Your task to perform on an android device: open device folders in google photos Image 0: 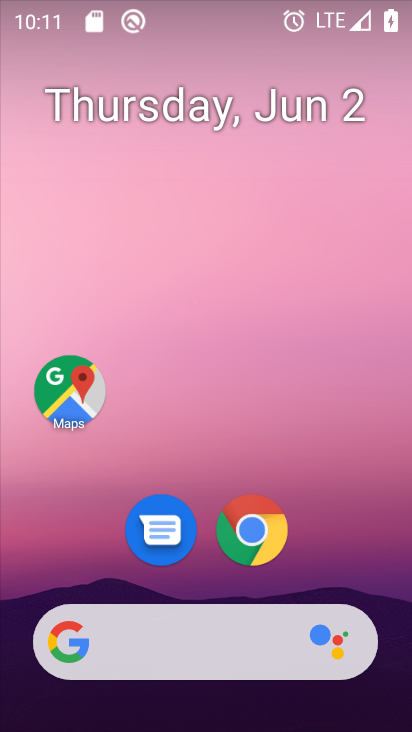
Step 0: drag from (224, 624) to (224, 283)
Your task to perform on an android device: open device folders in google photos Image 1: 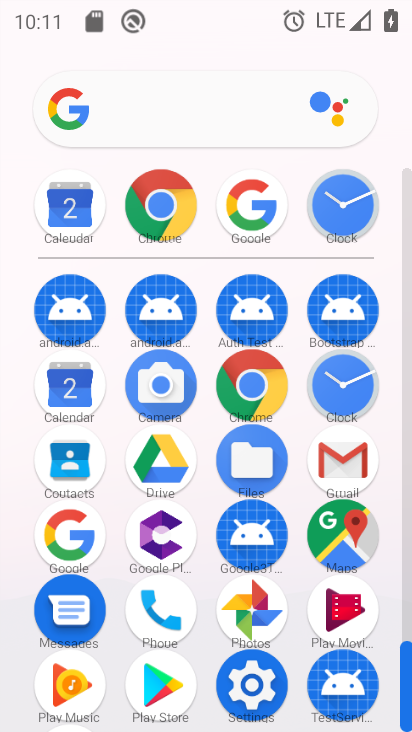
Step 1: click (75, 530)
Your task to perform on an android device: open device folders in google photos Image 2: 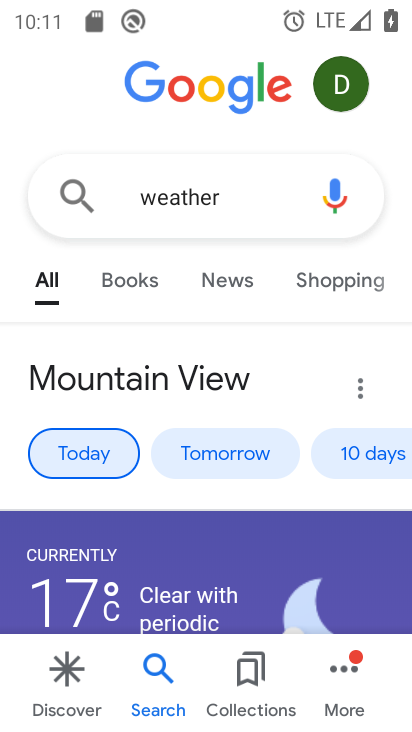
Step 2: click (158, 194)
Your task to perform on an android device: open device folders in google photos Image 3: 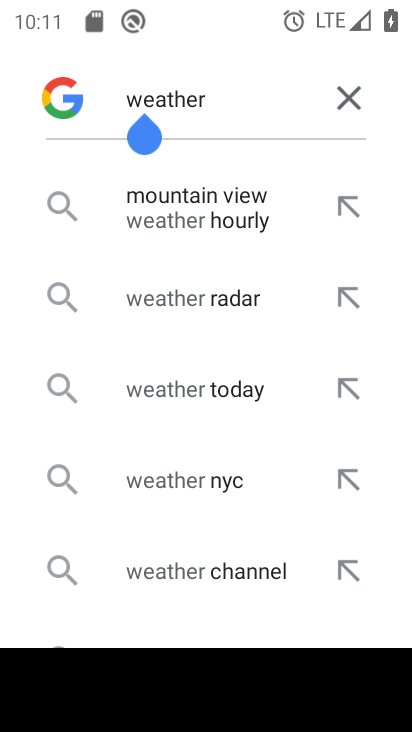
Step 3: click (358, 98)
Your task to perform on an android device: open device folders in google photos Image 4: 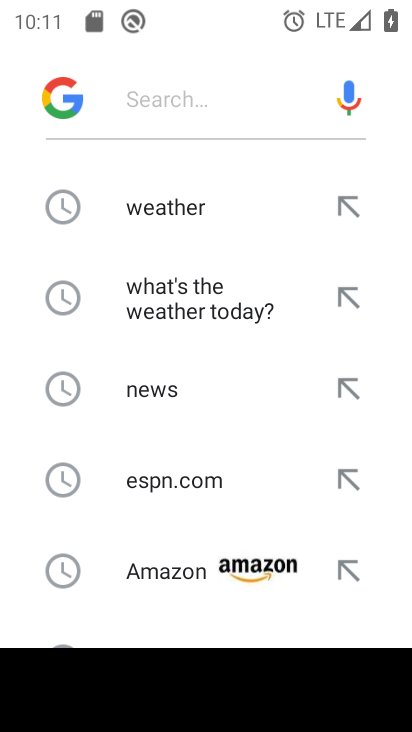
Step 4: drag from (155, 499) to (149, 203)
Your task to perform on an android device: open device folders in google photos Image 5: 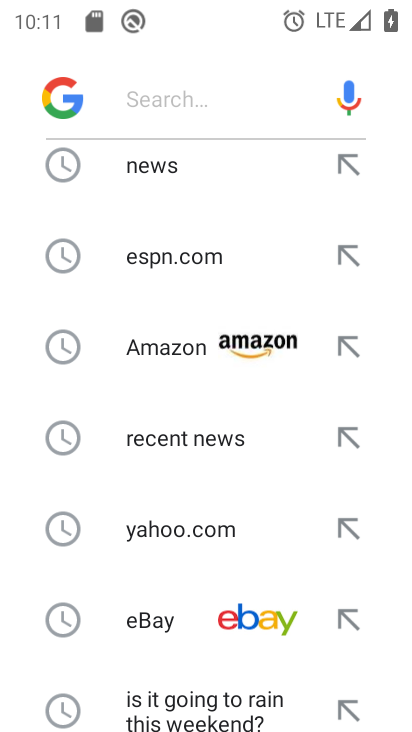
Step 5: drag from (146, 580) to (146, 343)
Your task to perform on an android device: open device folders in google photos Image 6: 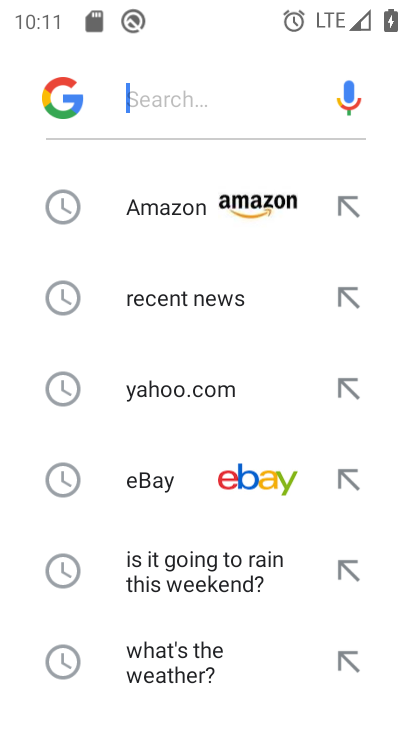
Step 6: press home button
Your task to perform on an android device: open device folders in google photos Image 7: 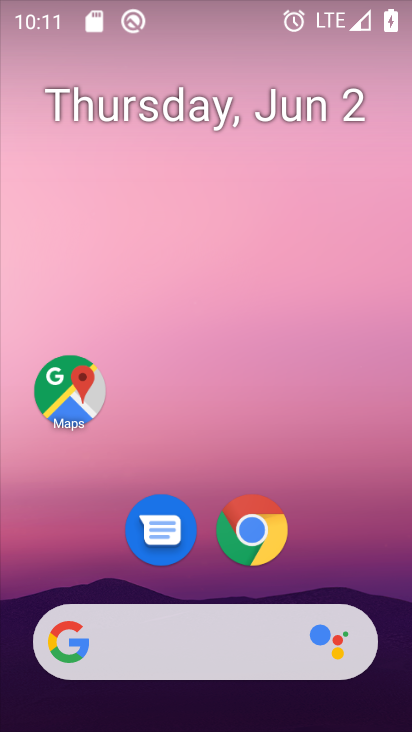
Step 7: drag from (169, 564) to (169, 363)
Your task to perform on an android device: open device folders in google photos Image 8: 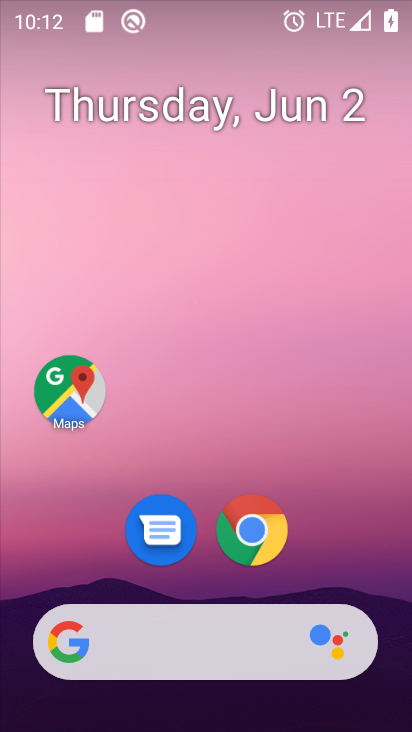
Step 8: drag from (267, 567) to (280, 219)
Your task to perform on an android device: open device folders in google photos Image 9: 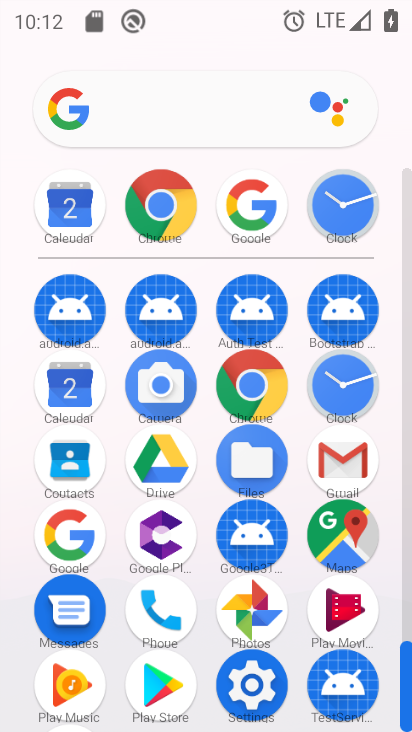
Step 9: click (236, 606)
Your task to perform on an android device: open device folders in google photos Image 10: 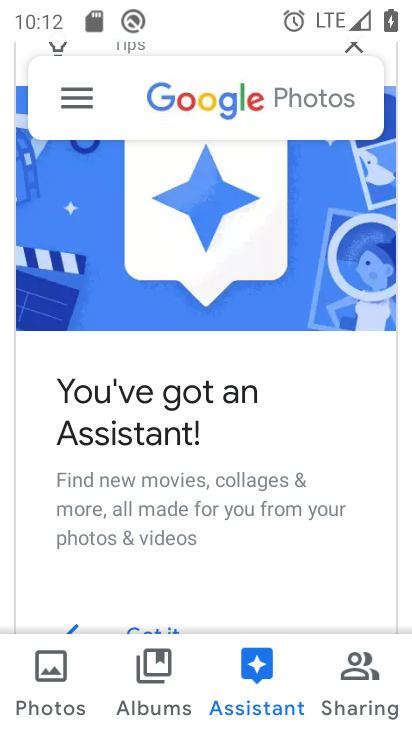
Step 10: click (87, 105)
Your task to perform on an android device: open device folders in google photos Image 11: 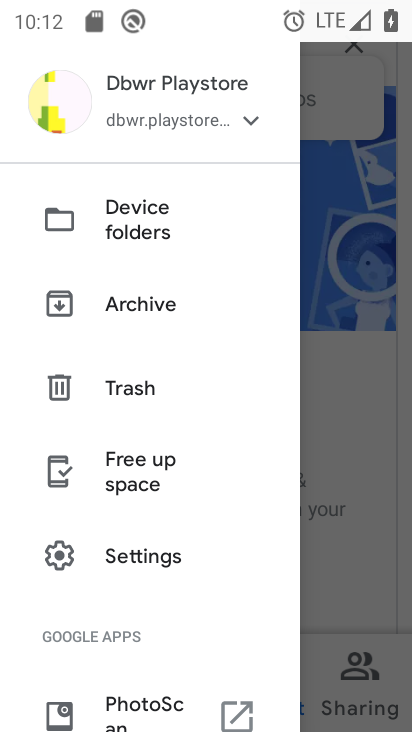
Step 11: click (124, 236)
Your task to perform on an android device: open device folders in google photos Image 12: 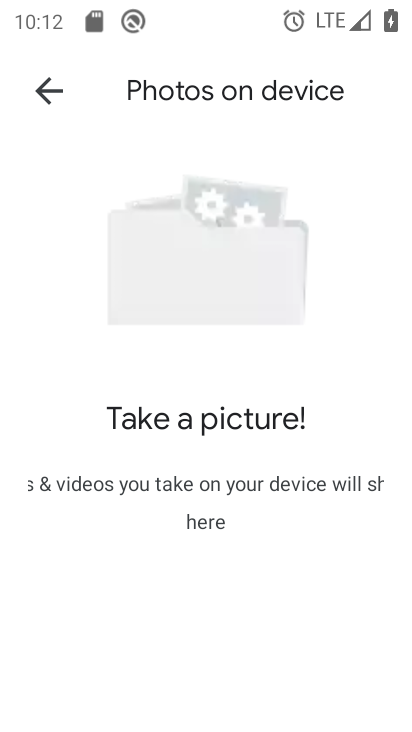
Step 12: task complete